Your task to perform on an android device: change text size in settings app Image 0: 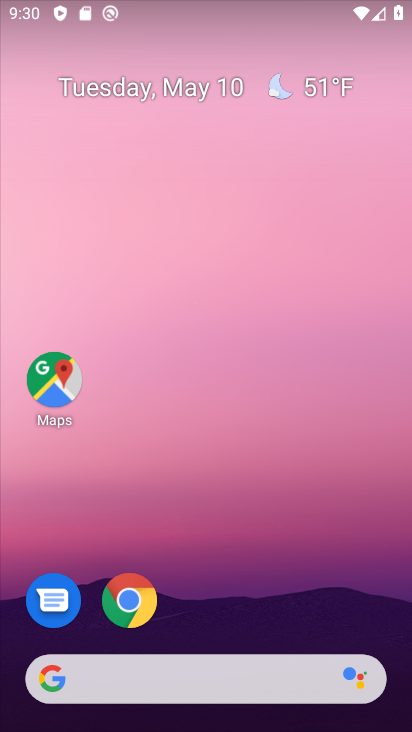
Step 0: drag from (357, 619) to (269, 65)
Your task to perform on an android device: change text size in settings app Image 1: 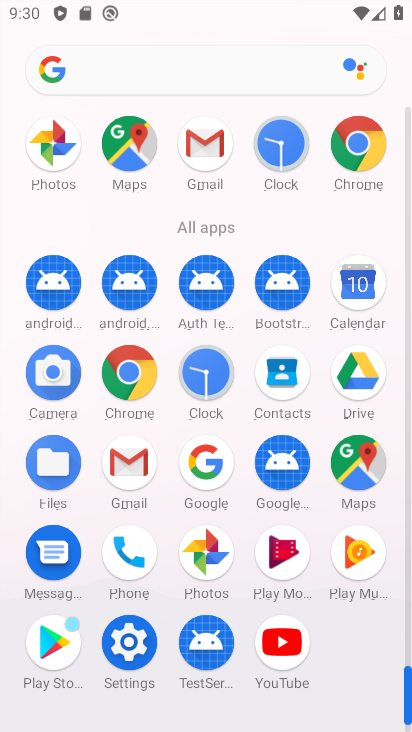
Step 1: click (127, 644)
Your task to perform on an android device: change text size in settings app Image 2: 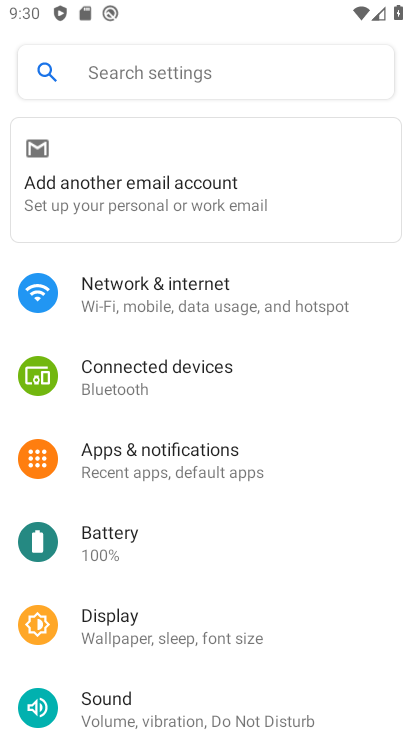
Step 2: click (152, 625)
Your task to perform on an android device: change text size in settings app Image 3: 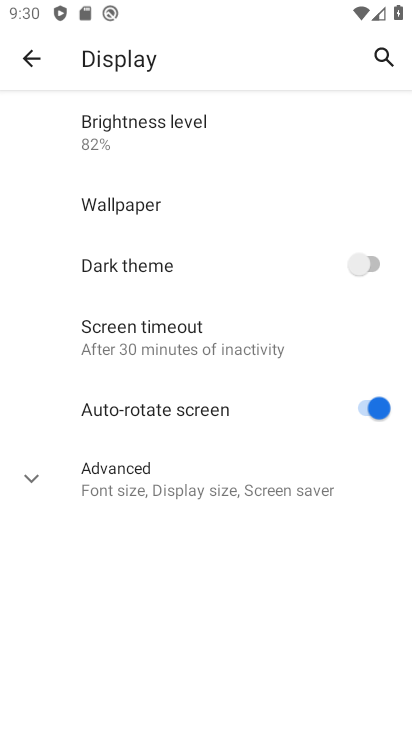
Step 3: click (33, 472)
Your task to perform on an android device: change text size in settings app Image 4: 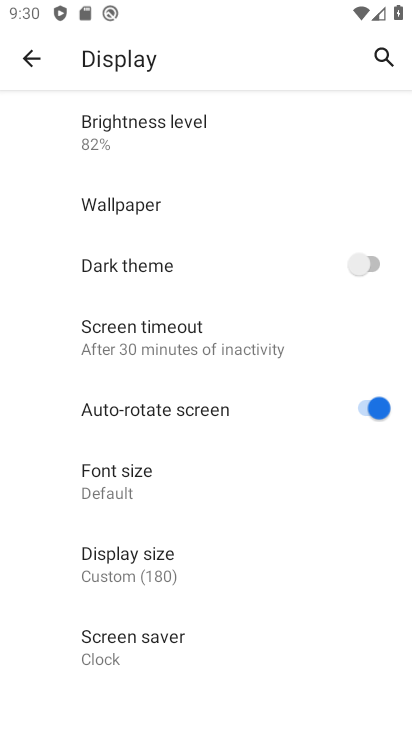
Step 4: click (108, 479)
Your task to perform on an android device: change text size in settings app Image 5: 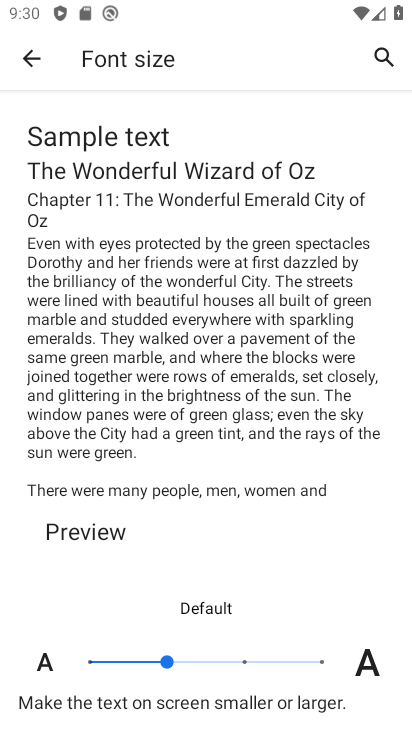
Step 5: click (242, 660)
Your task to perform on an android device: change text size in settings app Image 6: 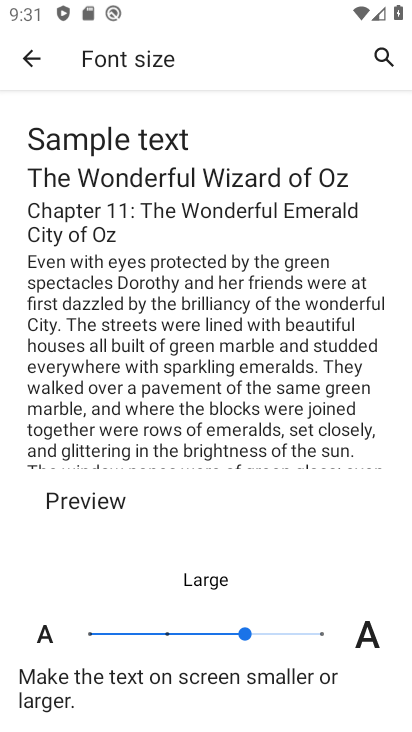
Step 6: task complete